Your task to perform on an android device: open a new tab in the chrome app Image 0: 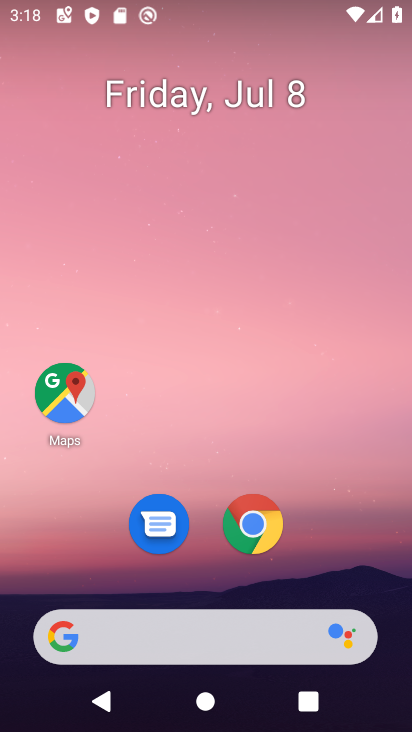
Step 0: click (256, 530)
Your task to perform on an android device: open a new tab in the chrome app Image 1: 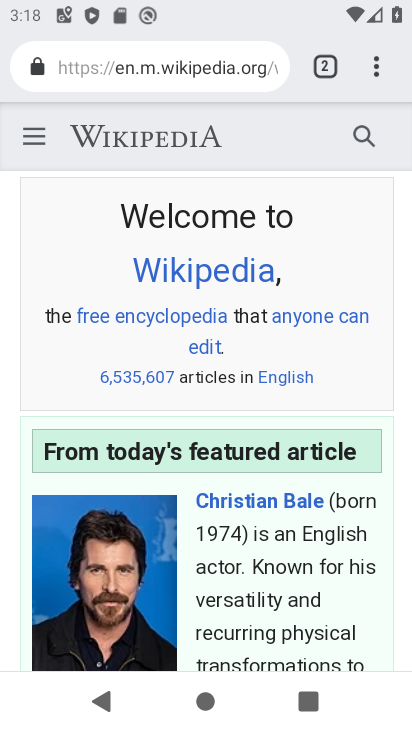
Step 1: click (377, 60)
Your task to perform on an android device: open a new tab in the chrome app Image 2: 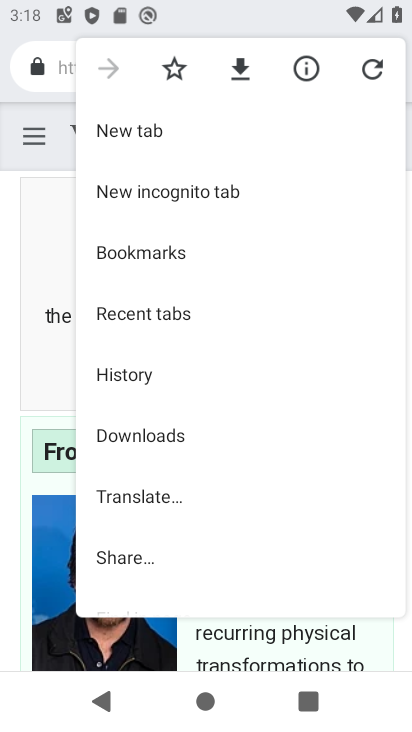
Step 2: click (286, 124)
Your task to perform on an android device: open a new tab in the chrome app Image 3: 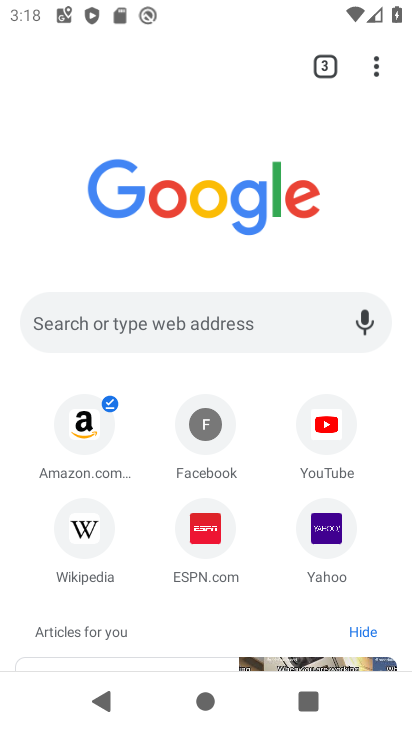
Step 3: task complete